Your task to perform on an android device: open a new tab in the chrome app Image 0: 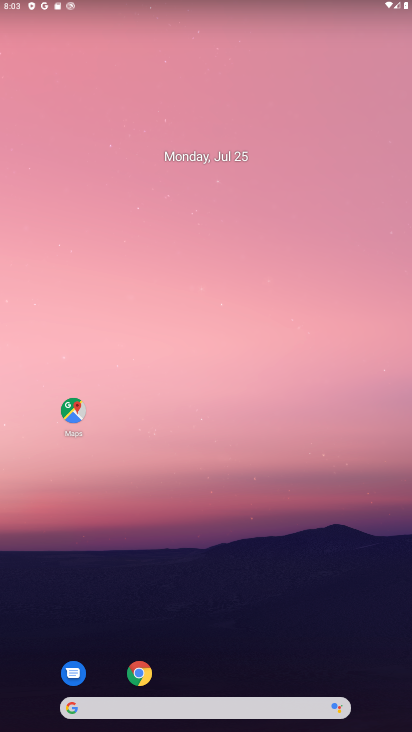
Step 0: click (137, 681)
Your task to perform on an android device: open a new tab in the chrome app Image 1: 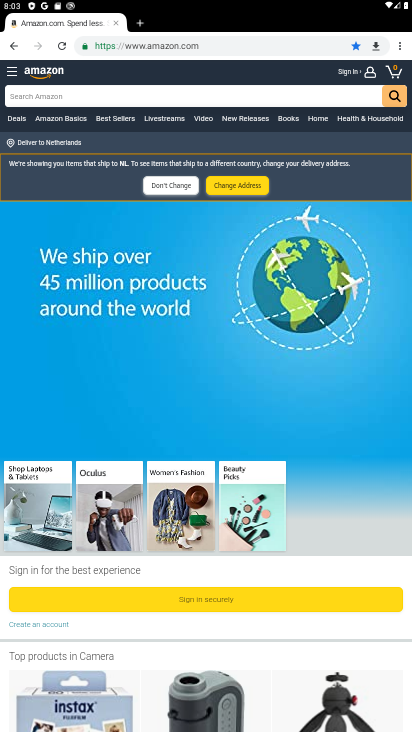
Step 1: click (134, 25)
Your task to perform on an android device: open a new tab in the chrome app Image 2: 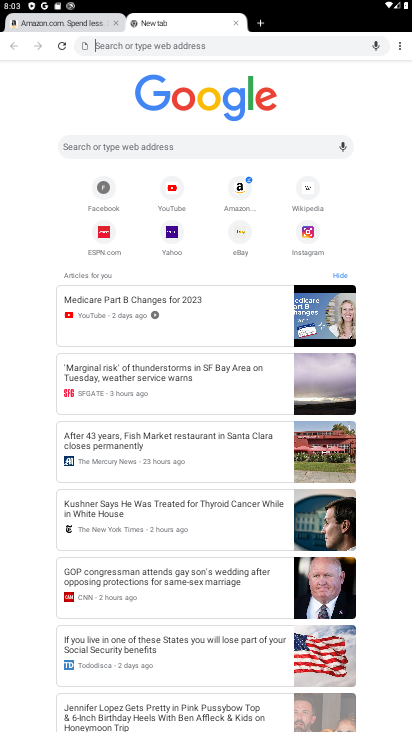
Step 2: task complete